Your task to perform on an android device: Open Google Maps Image 0: 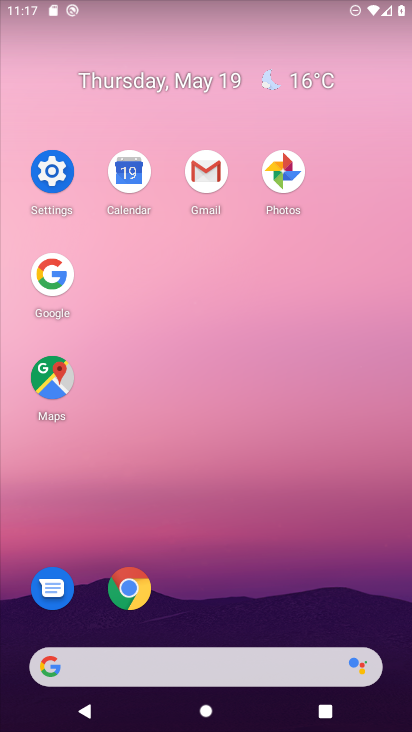
Step 0: click (55, 374)
Your task to perform on an android device: Open Google Maps Image 1: 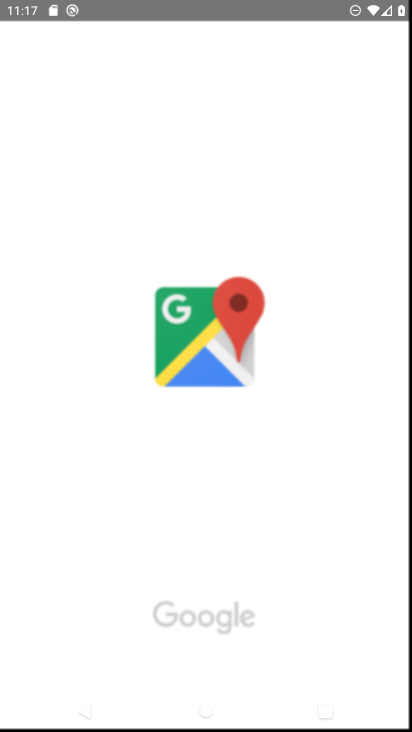
Step 1: task complete